Your task to perform on an android device: search for starred emails in the gmail app Image 0: 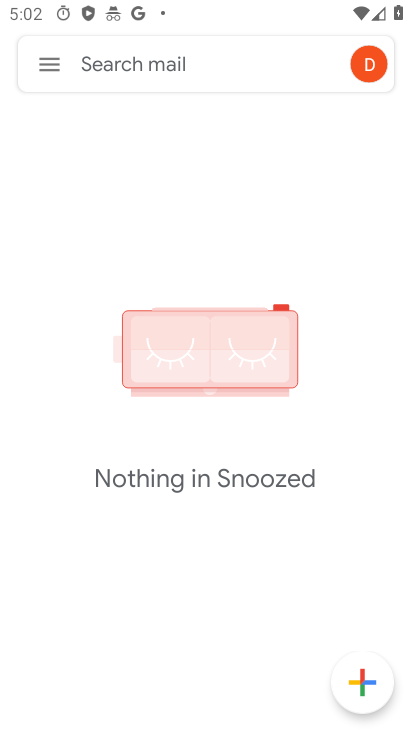
Step 0: click (45, 64)
Your task to perform on an android device: search for starred emails in the gmail app Image 1: 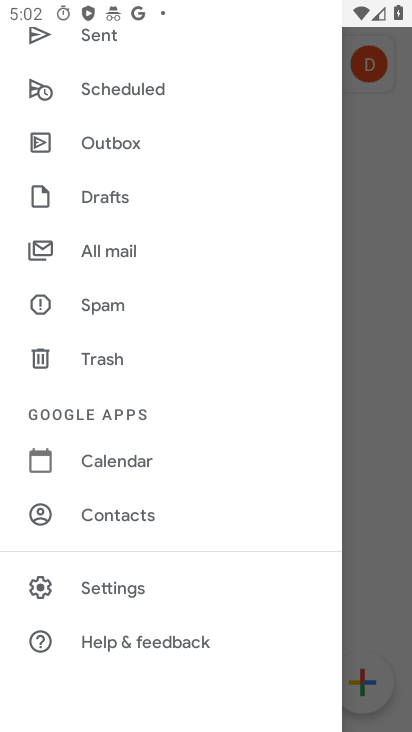
Step 1: drag from (148, 113) to (166, 400)
Your task to perform on an android device: search for starred emails in the gmail app Image 2: 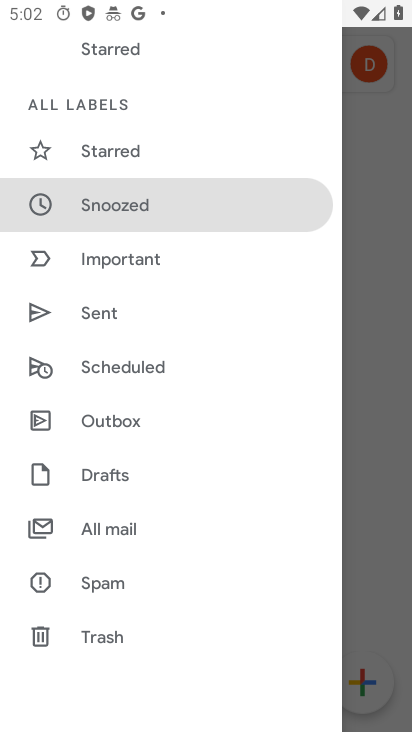
Step 2: click (115, 141)
Your task to perform on an android device: search for starred emails in the gmail app Image 3: 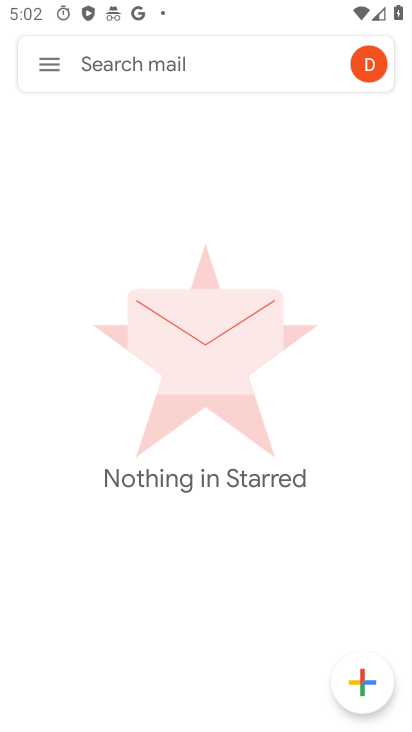
Step 3: task complete